Your task to perform on an android device: stop showing notifications on the lock screen Image 0: 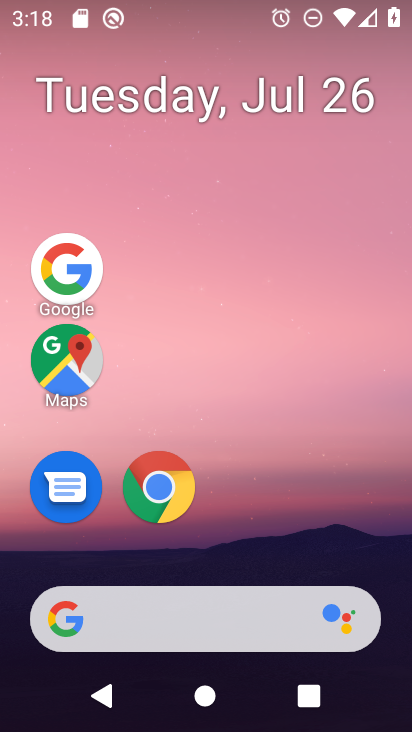
Step 0: drag from (296, 611) to (196, 4)
Your task to perform on an android device: stop showing notifications on the lock screen Image 1: 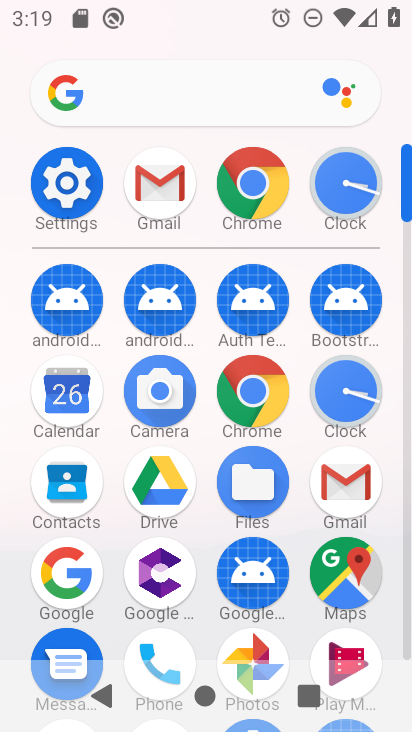
Step 1: drag from (184, 468) to (206, 110)
Your task to perform on an android device: stop showing notifications on the lock screen Image 2: 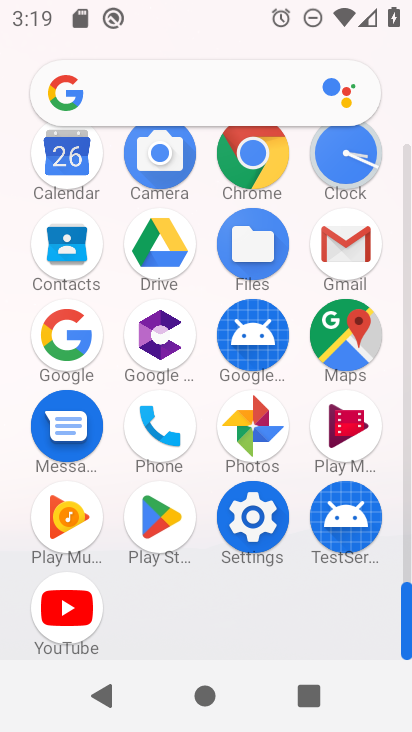
Step 2: click (254, 521)
Your task to perform on an android device: stop showing notifications on the lock screen Image 3: 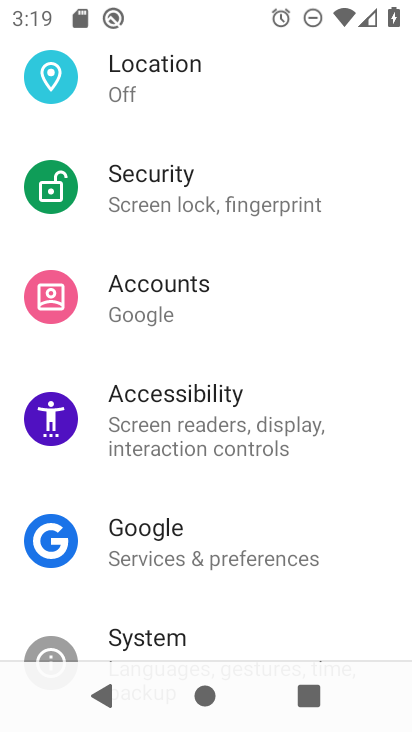
Step 3: drag from (225, 225) to (175, 705)
Your task to perform on an android device: stop showing notifications on the lock screen Image 4: 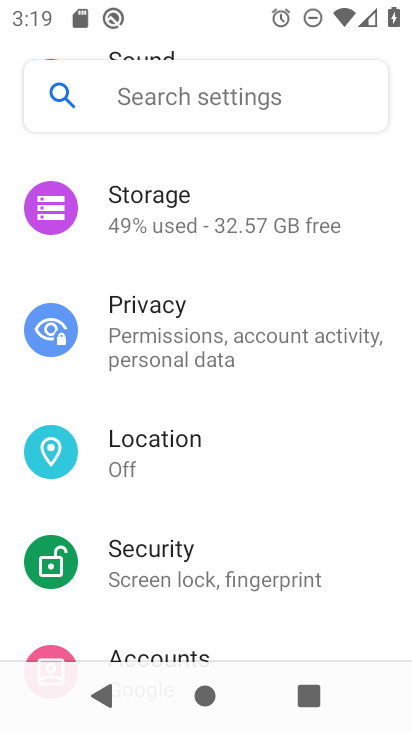
Step 4: drag from (232, 317) to (139, 713)
Your task to perform on an android device: stop showing notifications on the lock screen Image 5: 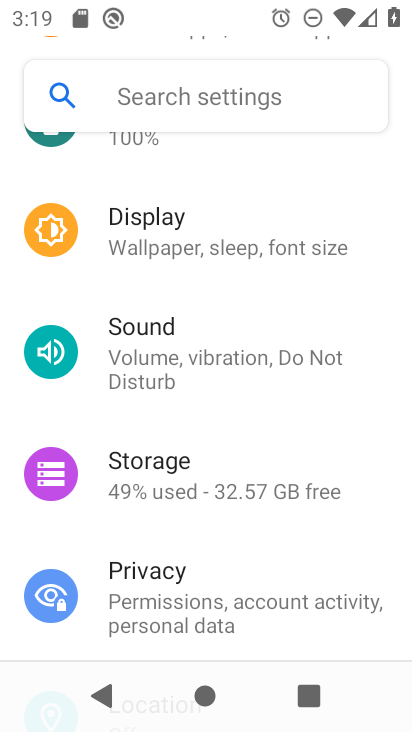
Step 5: drag from (206, 257) to (202, 609)
Your task to perform on an android device: stop showing notifications on the lock screen Image 6: 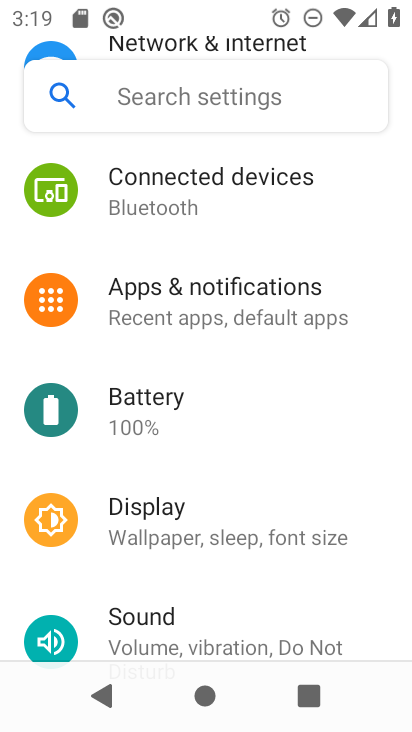
Step 6: click (220, 314)
Your task to perform on an android device: stop showing notifications on the lock screen Image 7: 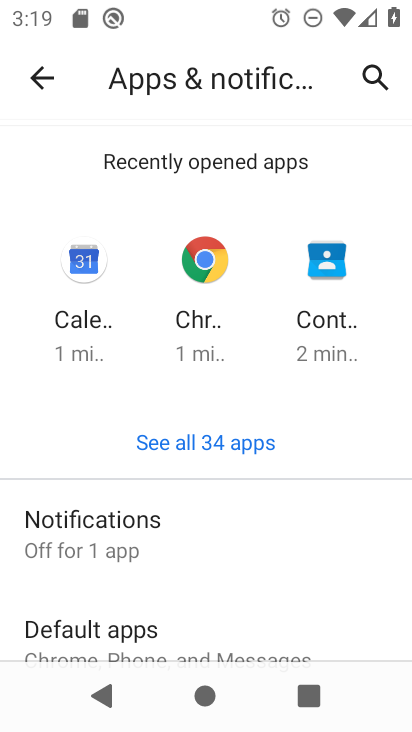
Step 7: click (159, 527)
Your task to perform on an android device: stop showing notifications on the lock screen Image 8: 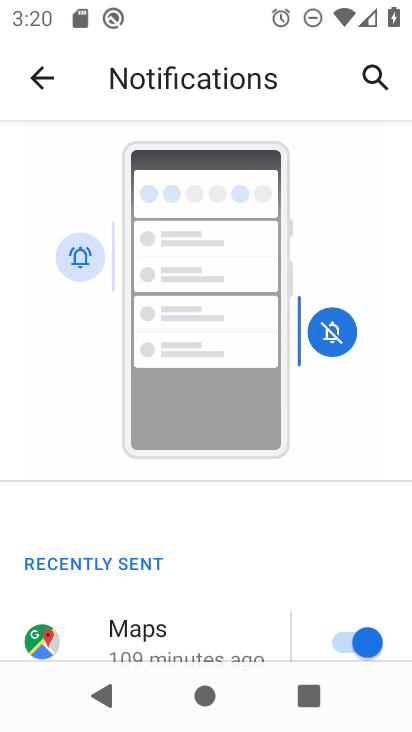
Step 8: drag from (181, 550) to (243, 139)
Your task to perform on an android device: stop showing notifications on the lock screen Image 9: 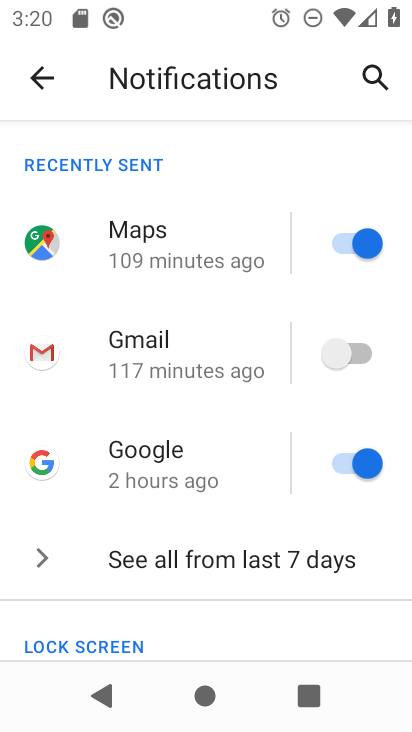
Step 9: drag from (198, 567) to (196, 220)
Your task to perform on an android device: stop showing notifications on the lock screen Image 10: 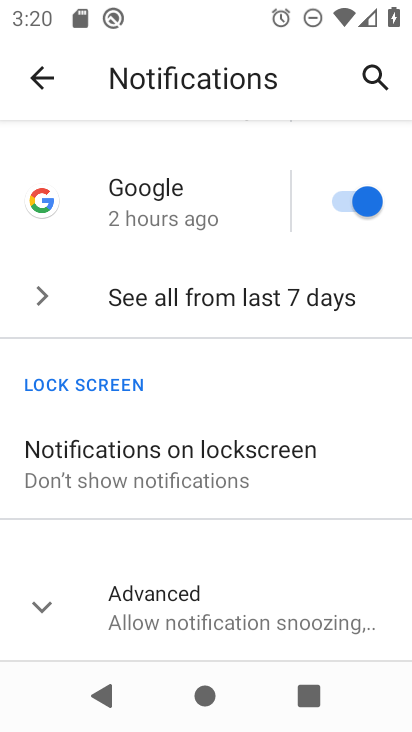
Step 10: click (198, 466)
Your task to perform on an android device: stop showing notifications on the lock screen Image 11: 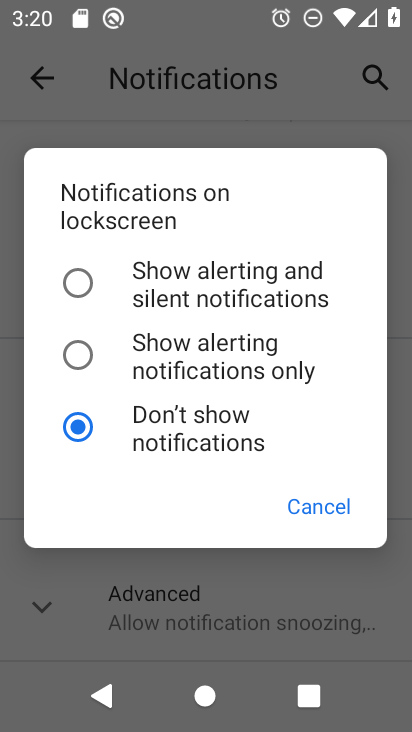
Step 11: task complete